Your task to perform on an android device: Clear the shopping cart on costco. Add razer deathadder to the cart on costco, then select checkout. Image 0: 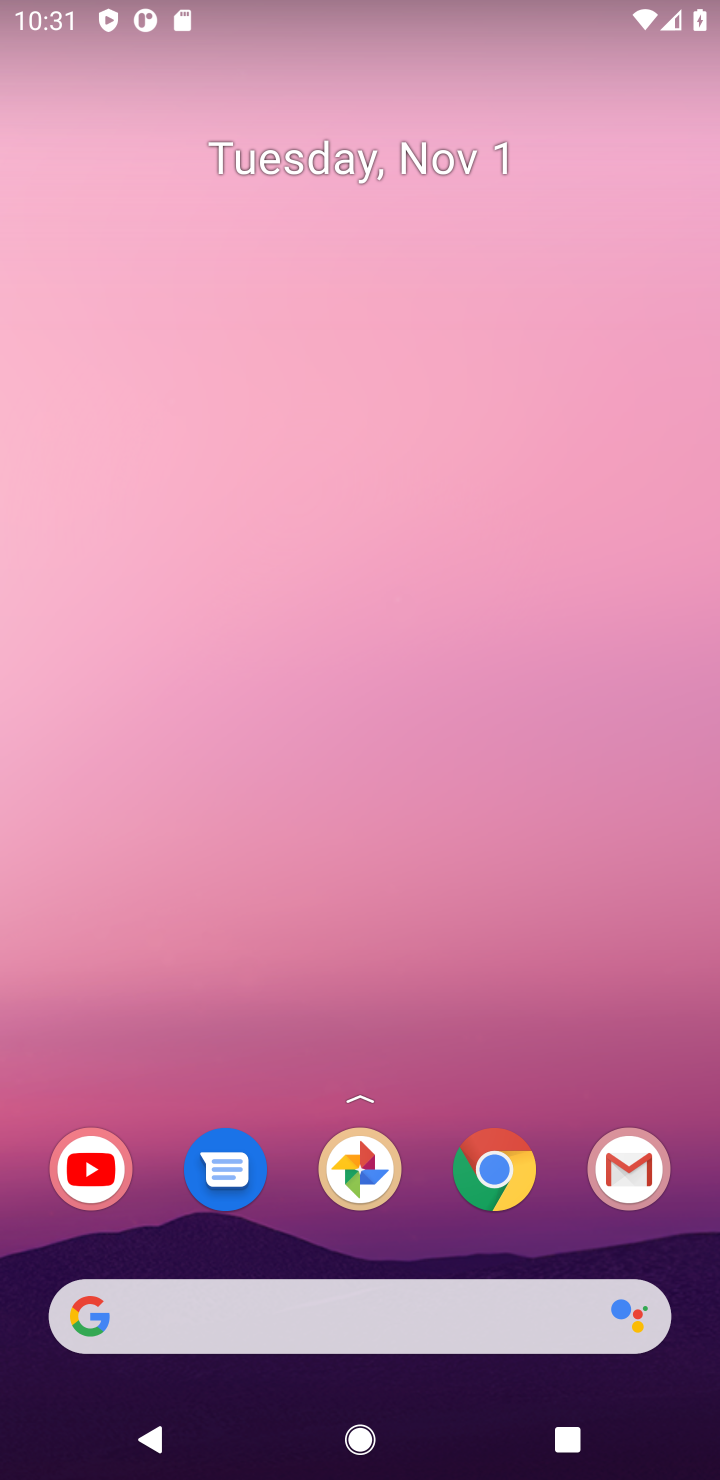
Step 0: click (496, 1159)
Your task to perform on an android device: Clear the shopping cart on costco. Add razer deathadder to the cart on costco, then select checkout. Image 1: 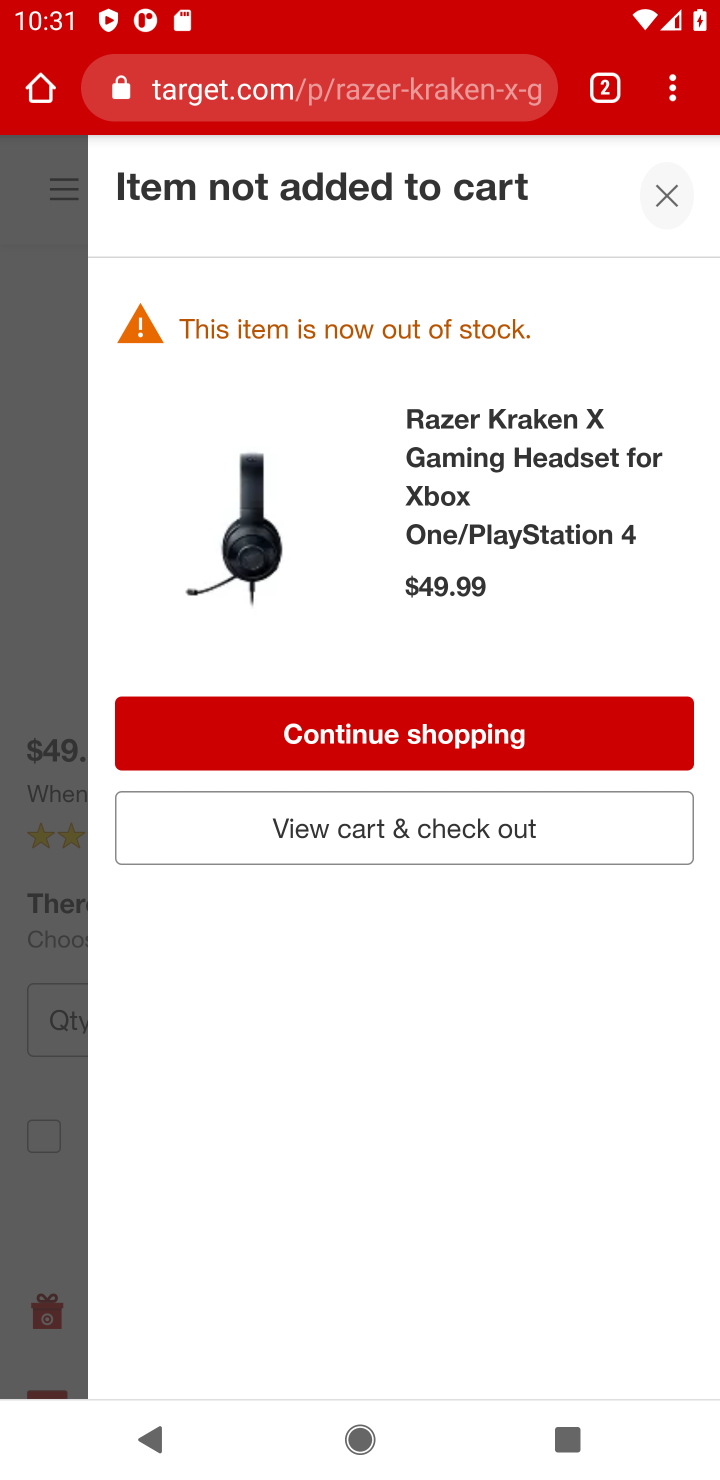
Step 1: click (474, 91)
Your task to perform on an android device: Clear the shopping cart on costco. Add razer deathadder to the cart on costco, then select checkout. Image 2: 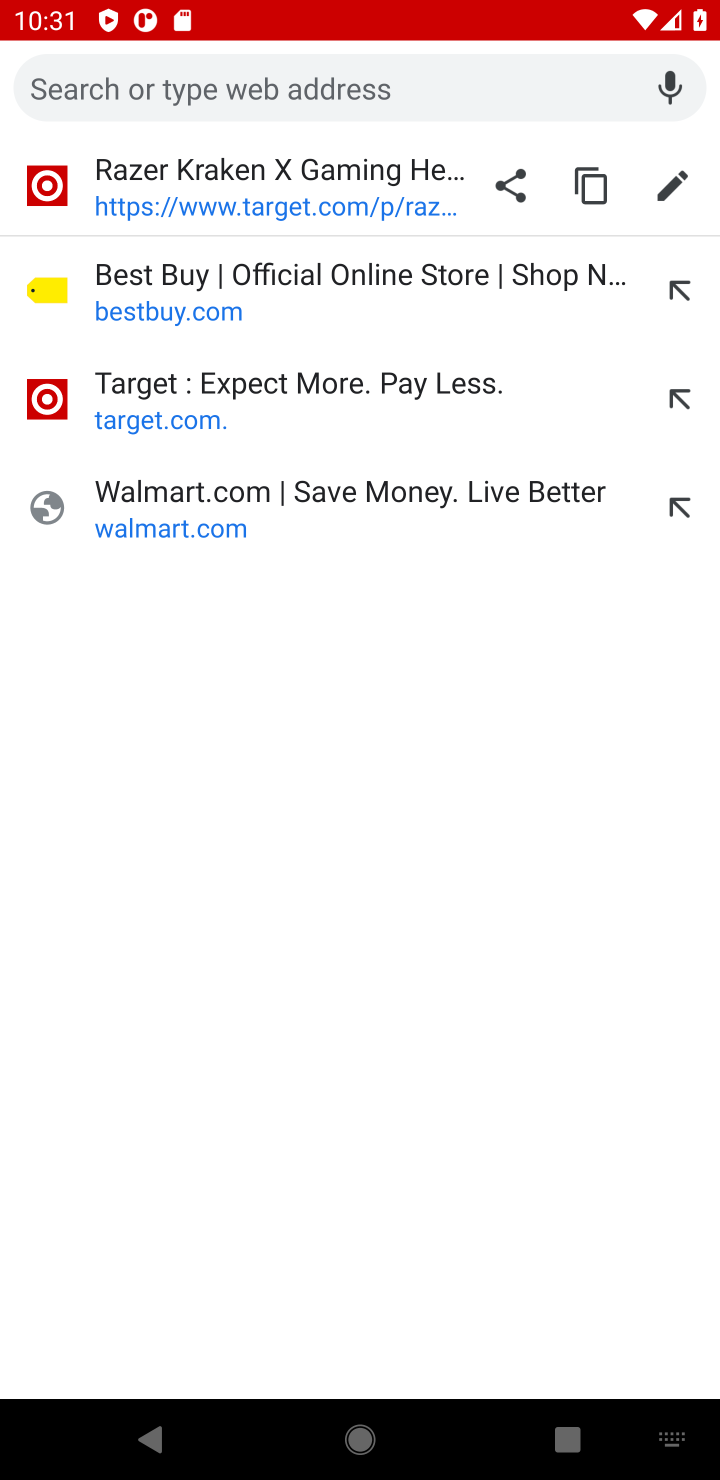
Step 2: click (534, 75)
Your task to perform on an android device: Clear the shopping cart on costco. Add razer deathadder to the cart on costco, then select checkout. Image 3: 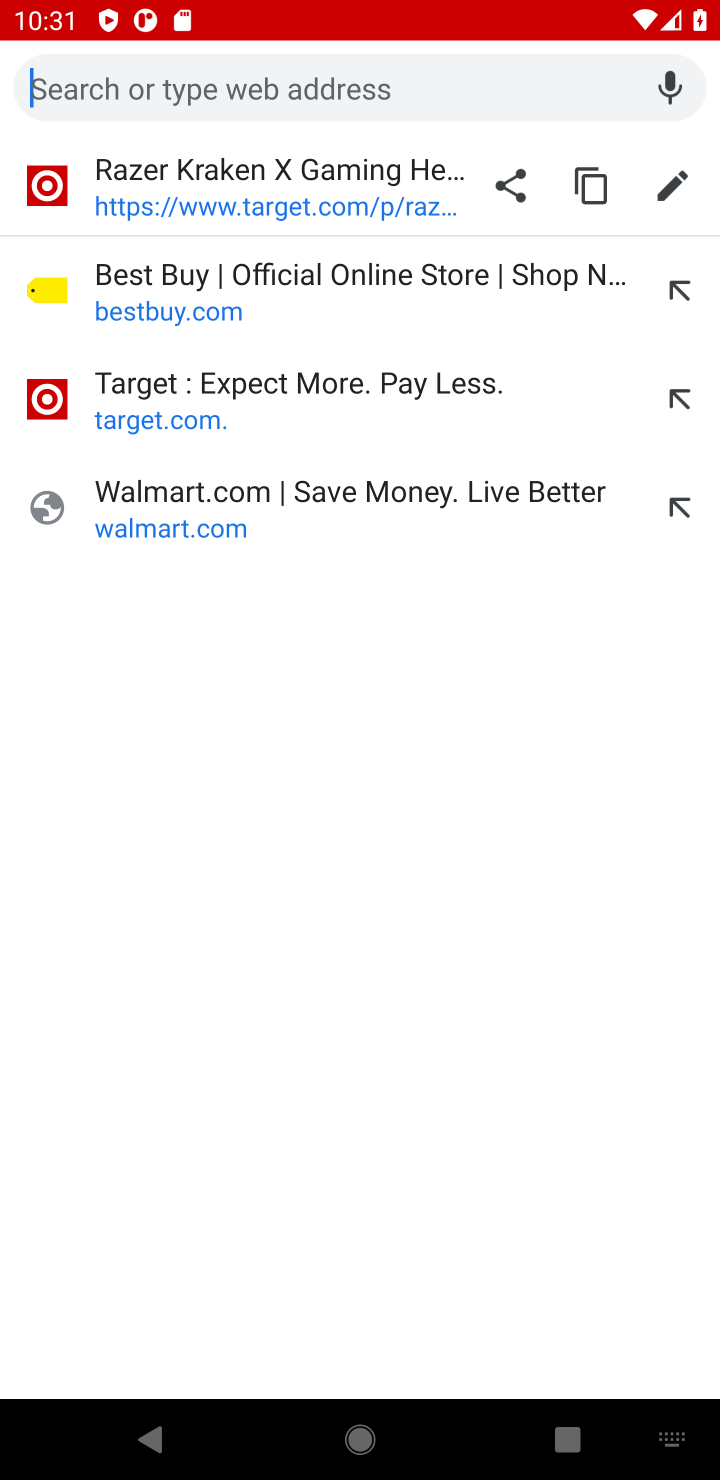
Step 3: type "costco"
Your task to perform on an android device: Clear the shopping cart on costco. Add razer deathadder to the cart on costco, then select checkout. Image 4: 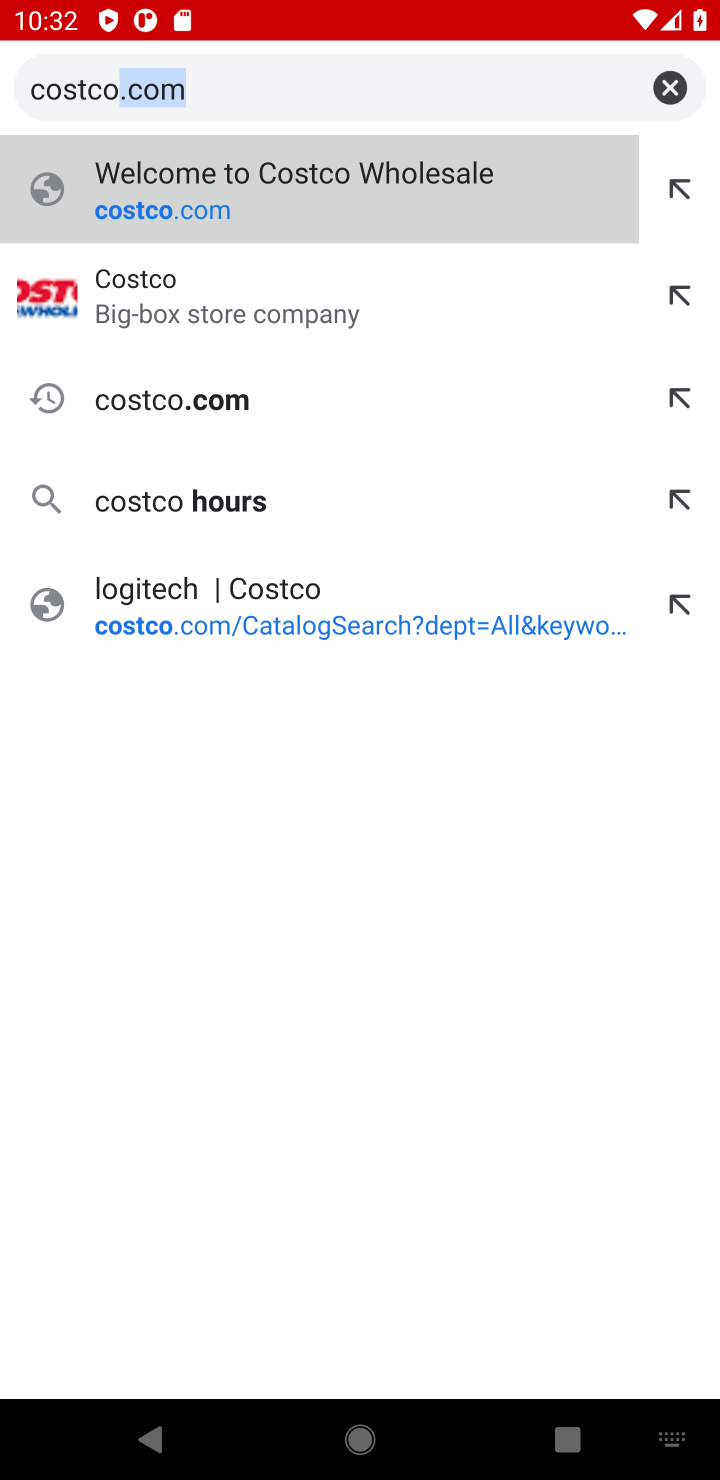
Step 4: click (332, 301)
Your task to perform on an android device: Clear the shopping cart on costco. Add razer deathadder to the cart on costco, then select checkout. Image 5: 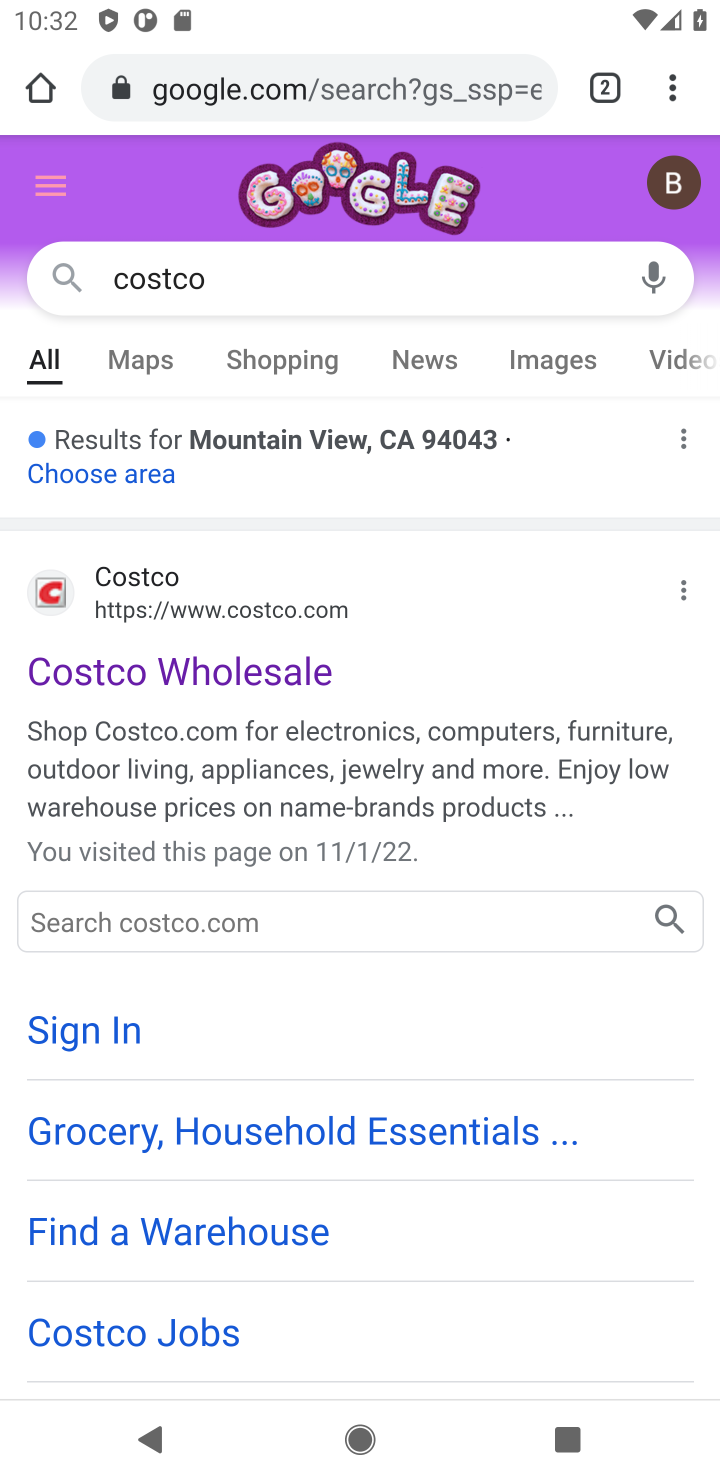
Step 5: click (159, 591)
Your task to perform on an android device: Clear the shopping cart on costco. Add razer deathadder to the cart on costco, then select checkout. Image 6: 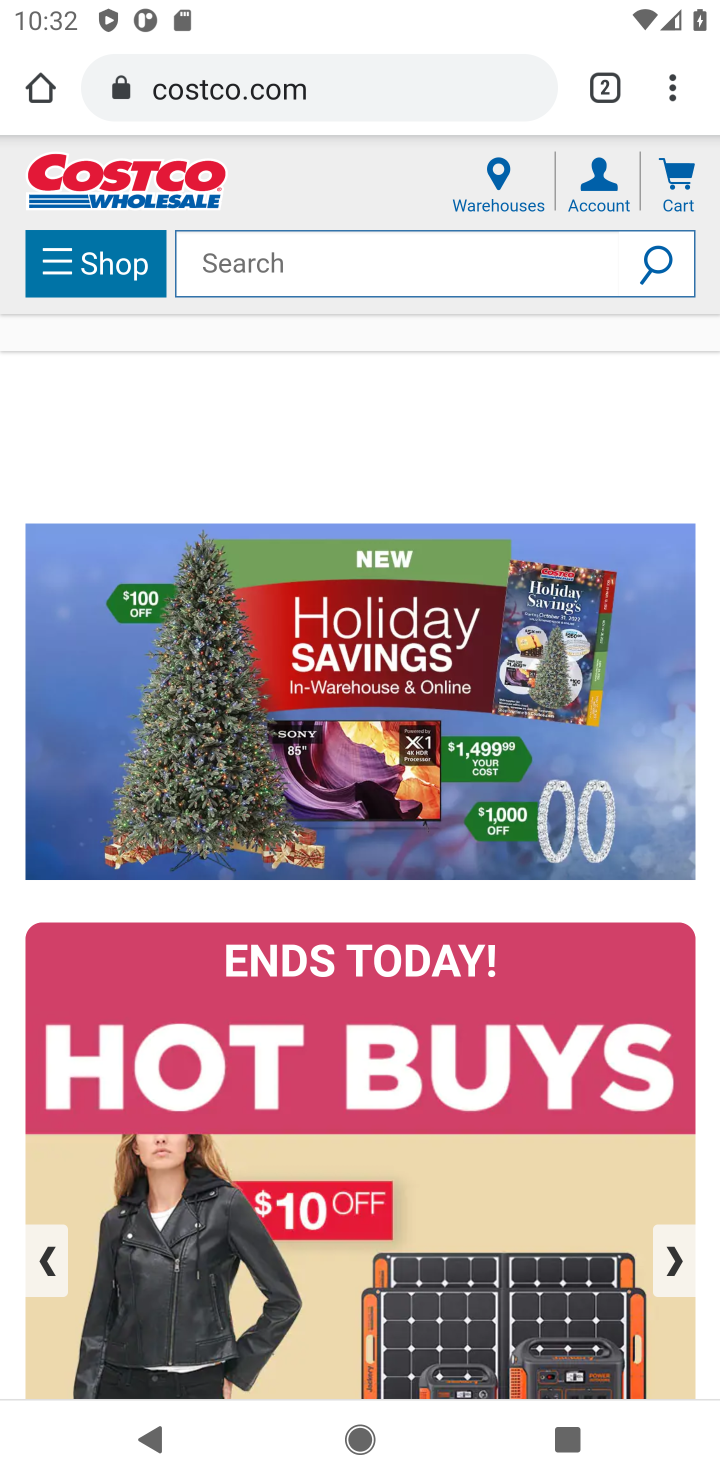
Step 6: click (672, 179)
Your task to perform on an android device: Clear the shopping cart on costco. Add razer deathadder to the cart on costco, then select checkout. Image 7: 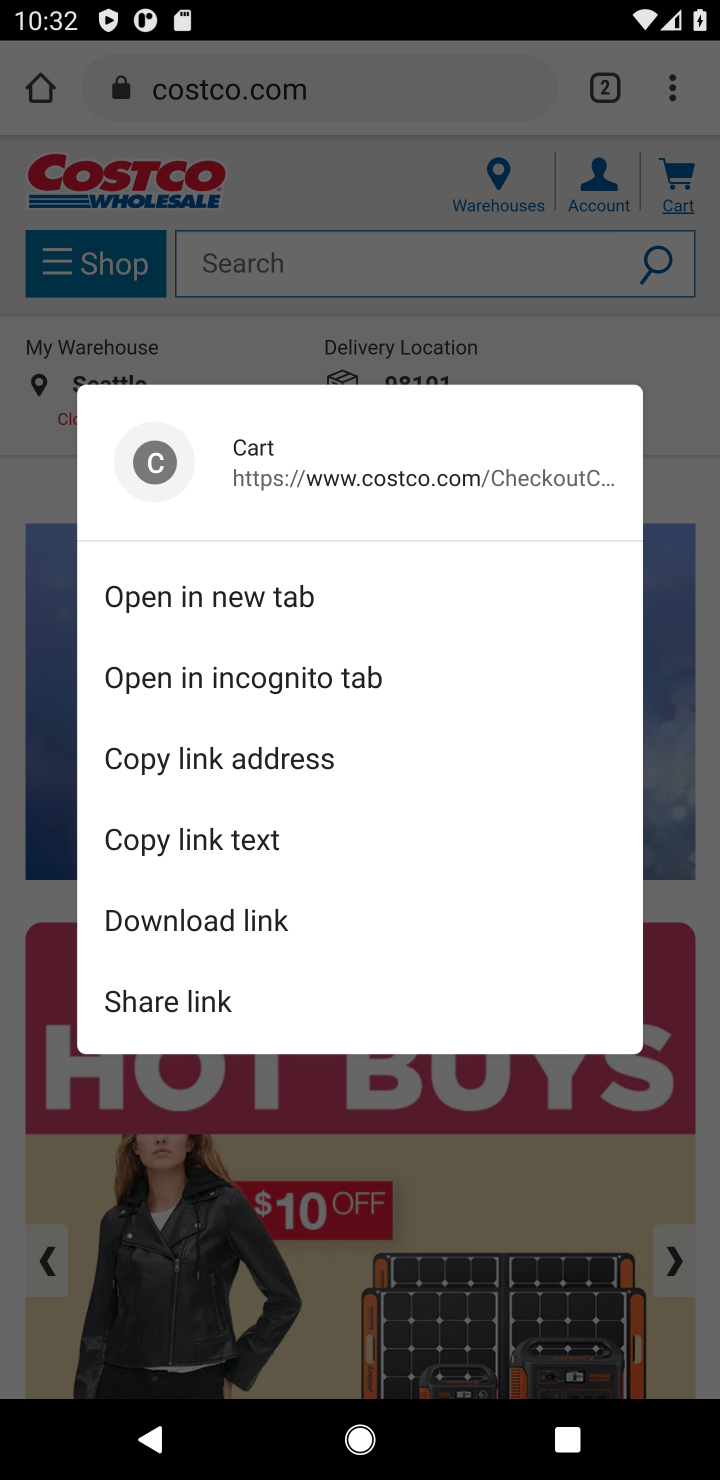
Step 7: click (666, 183)
Your task to perform on an android device: Clear the shopping cart on costco. Add razer deathadder to the cart on costco, then select checkout. Image 8: 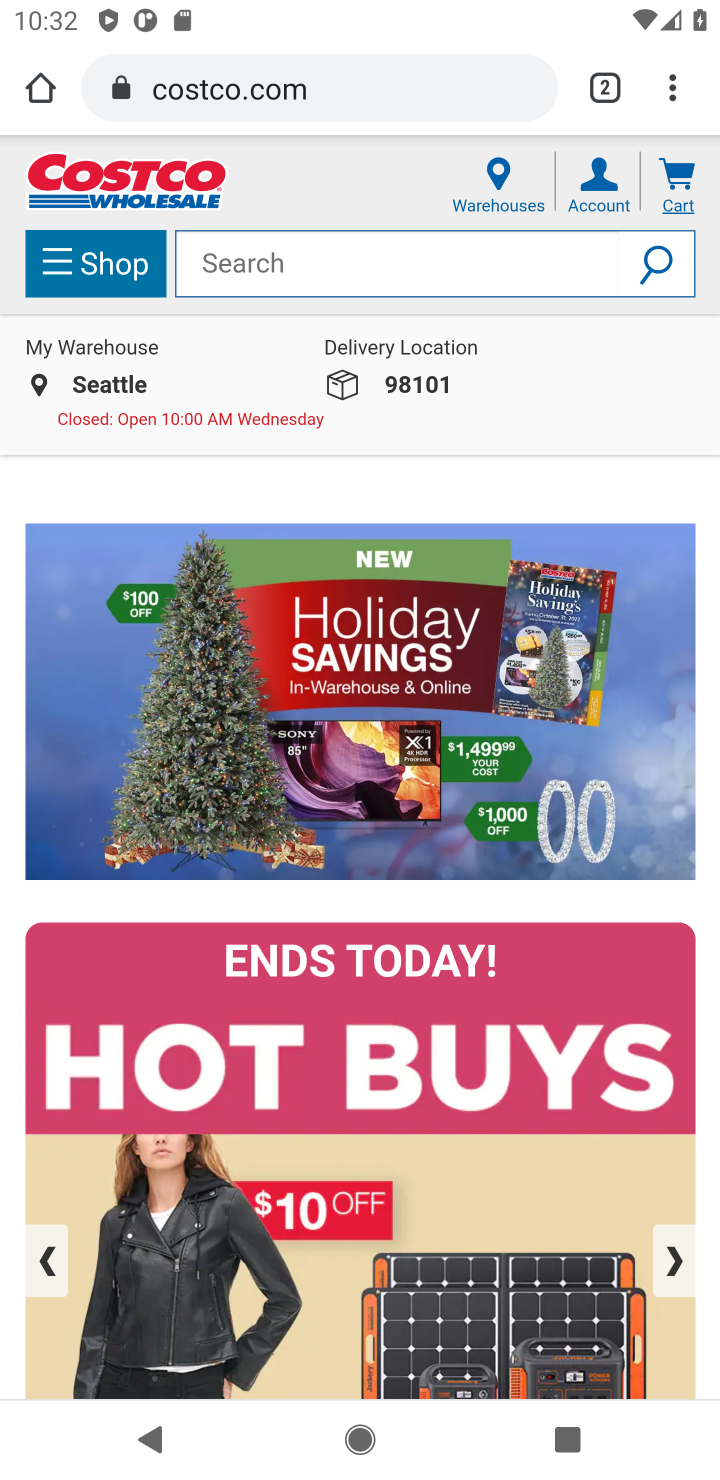
Step 8: click (666, 183)
Your task to perform on an android device: Clear the shopping cart on costco. Add razer deathadder to the cart on costco, then select checkout. Image 9: 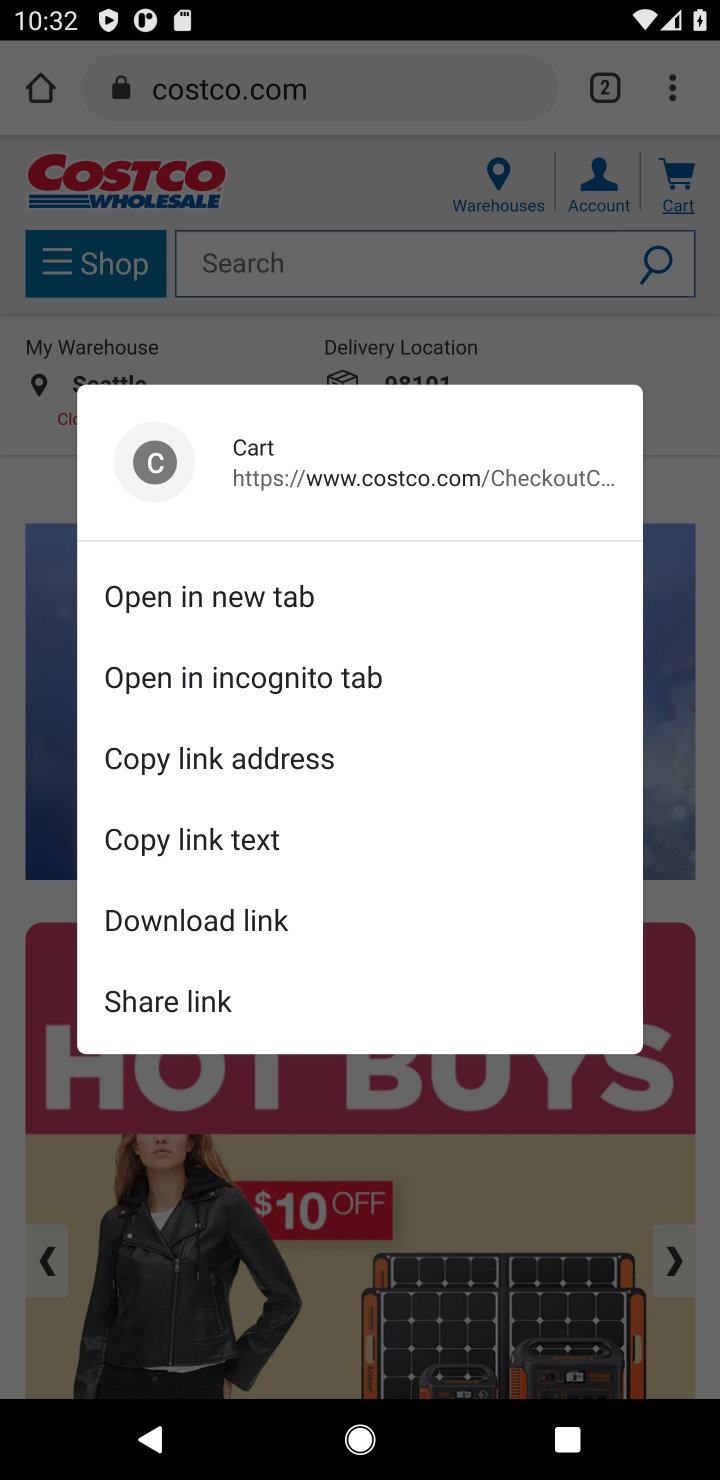
Step 9: click (666, 183)
Your task to perform on an android device: Clear the shopping cart on costco. Add razer deathadder to the cart on costco, then select checkout. Image 10: 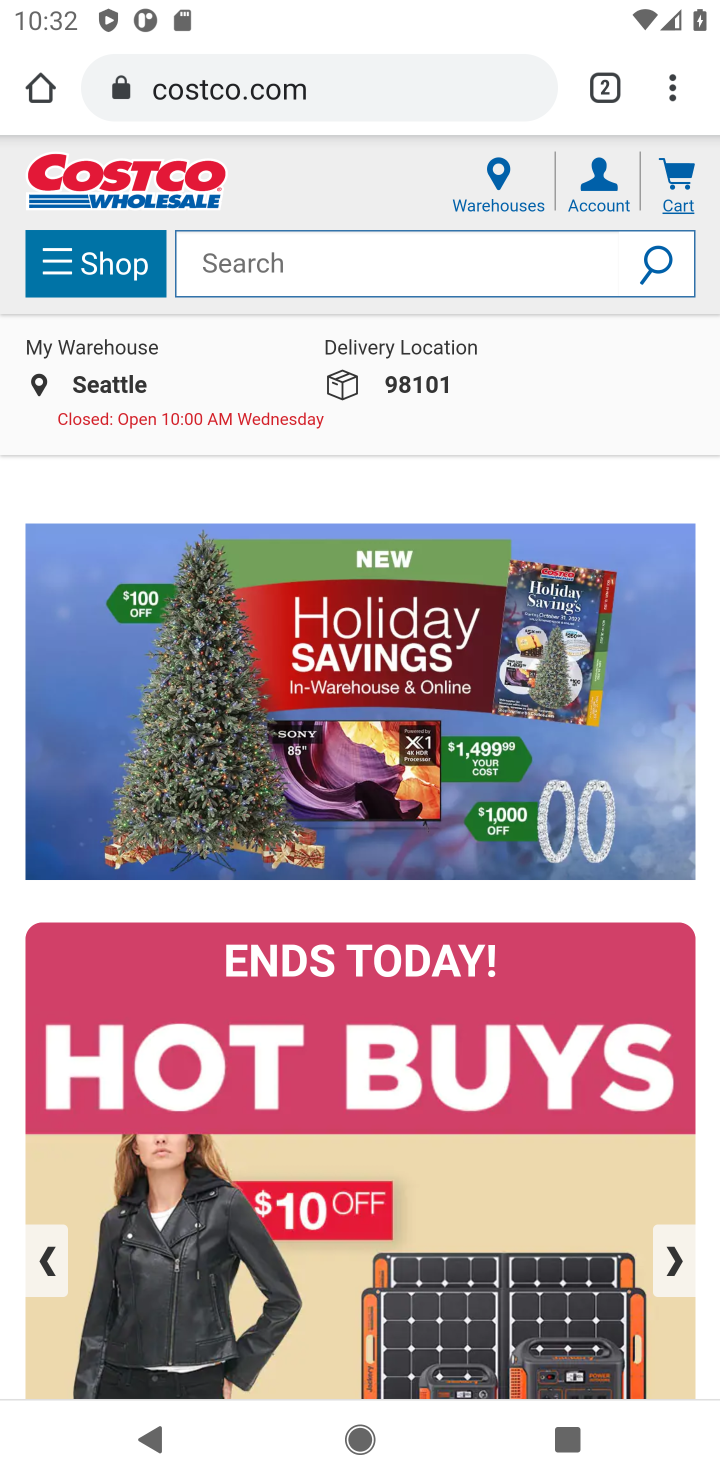
Step 10: click (370, 260)
Your task to perform on an android device: Clear the shopping cart on costco. Add razer deathadder to the cart on costco, then select checkout. Image 11: 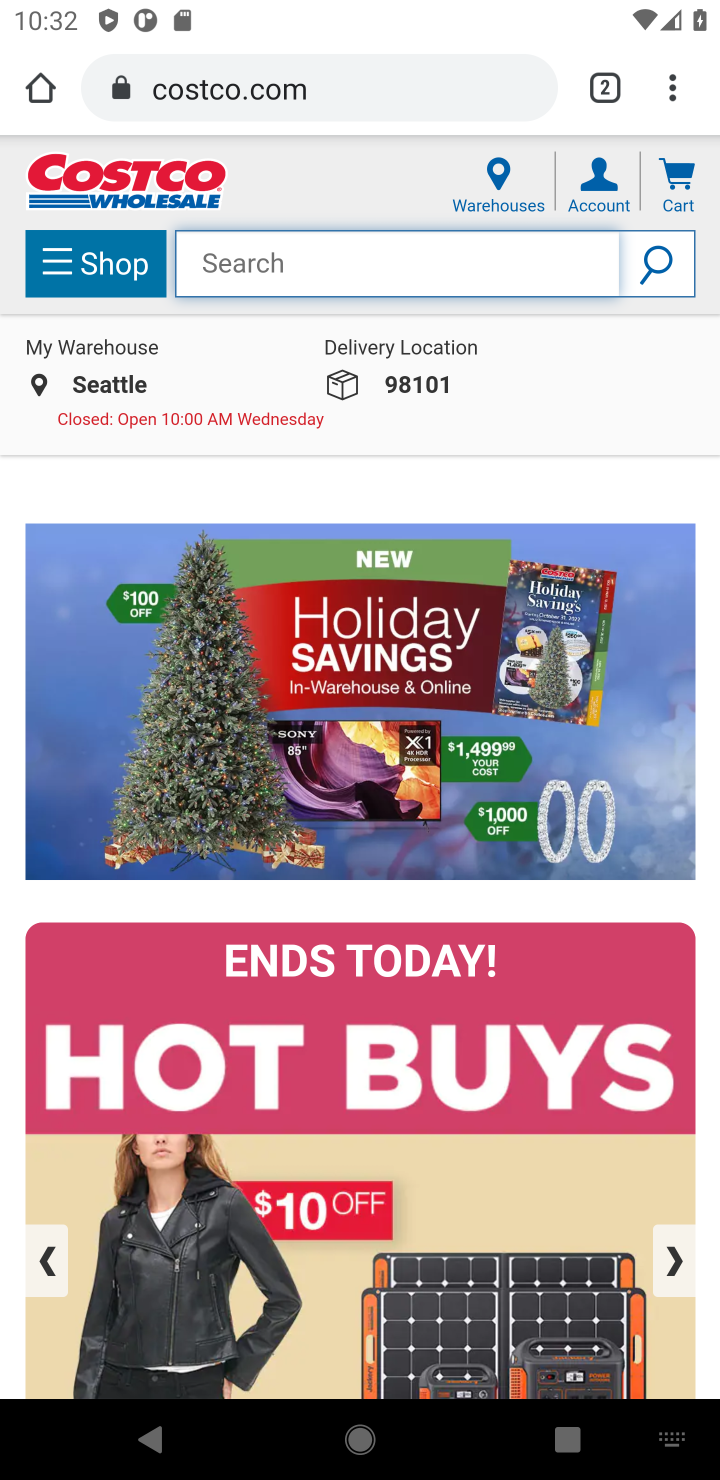
Step 11: type "razer deathadder"
Your task to perform on an android device: Clear the shopping cart on costco. Add razer deathadder to the cart on costco, then select checkout. Image 12: 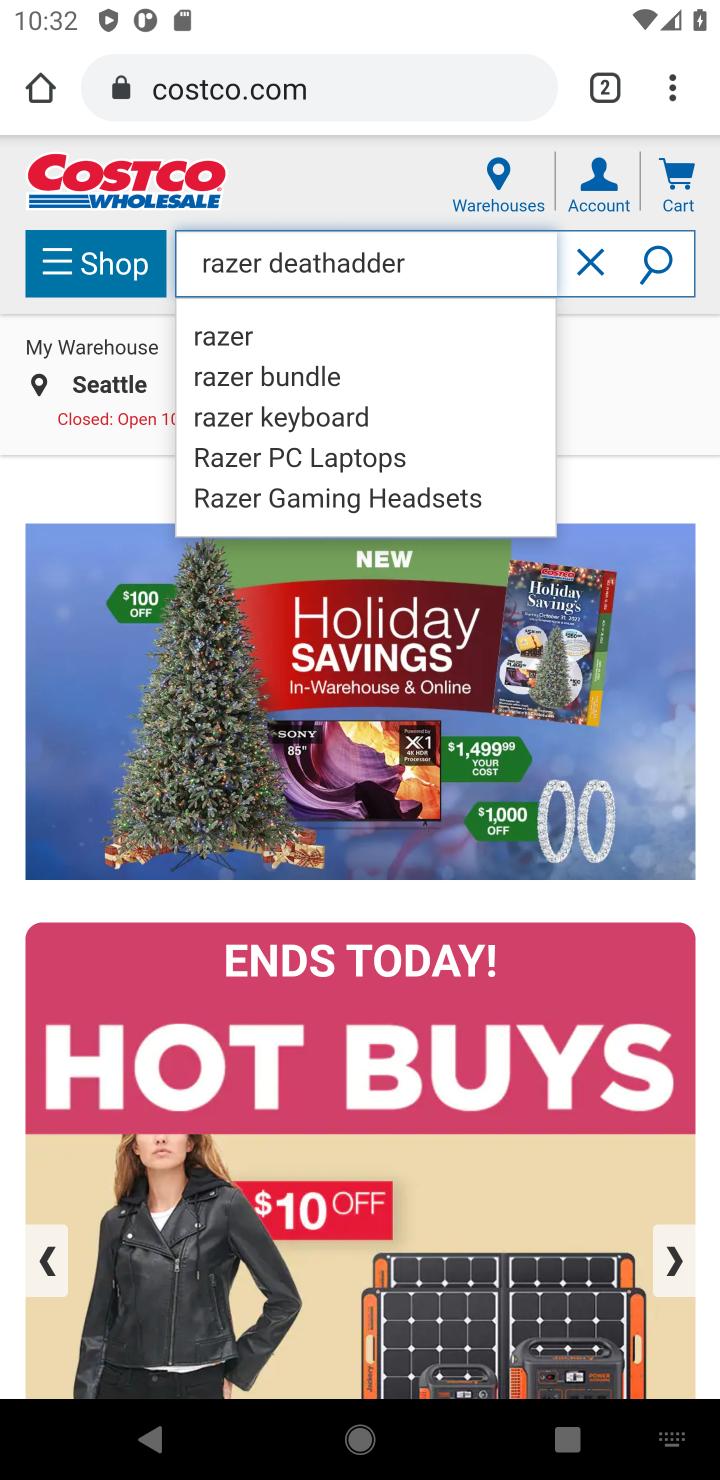
Step 12: click (670, 318)
Your task to perform on an android device: Clear the shopping cart on costco. Add razer deathadder to the cart on costco, then select checkout. Image 13: 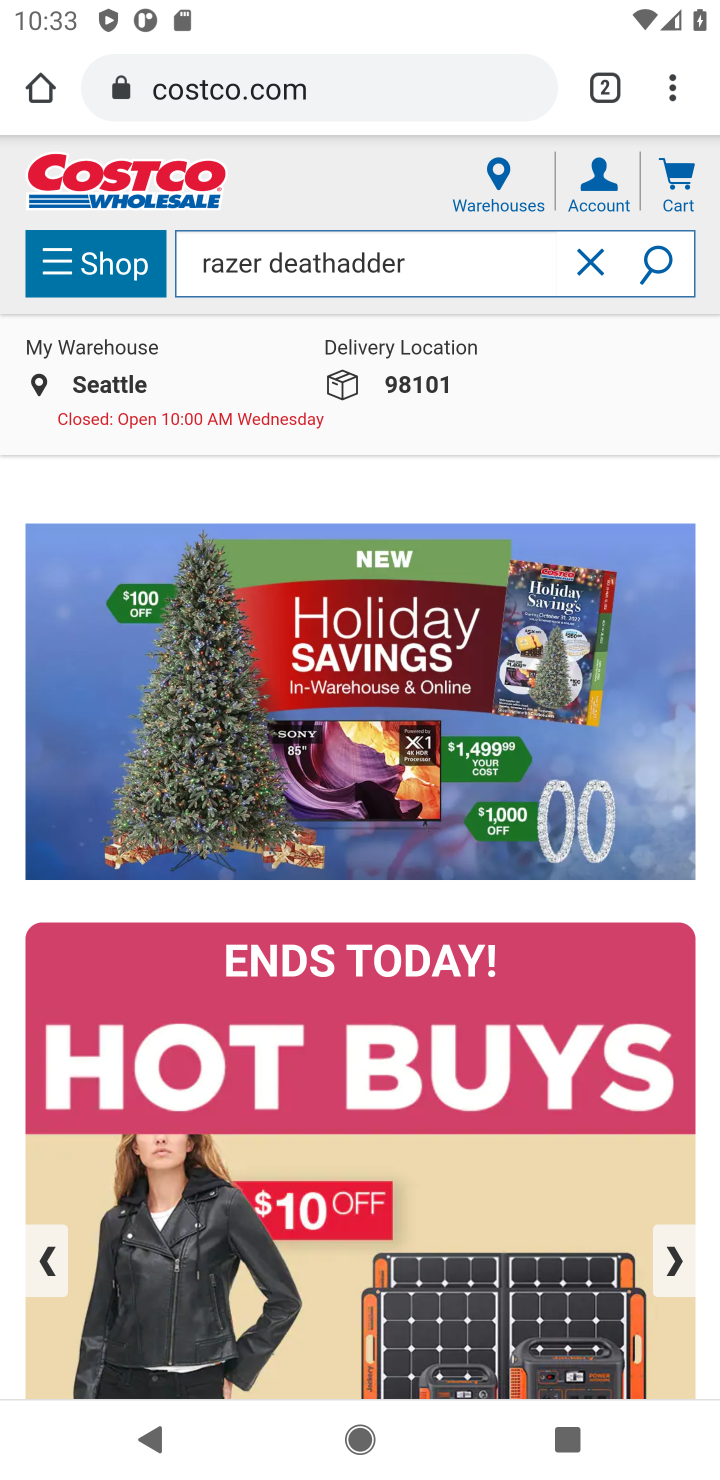
Step 13: click (472, 271)
Your task to perform on an android device: Clear the shopping cart on costco. Add razer deathadder to the cart on costco, then select checkout. Image 14: 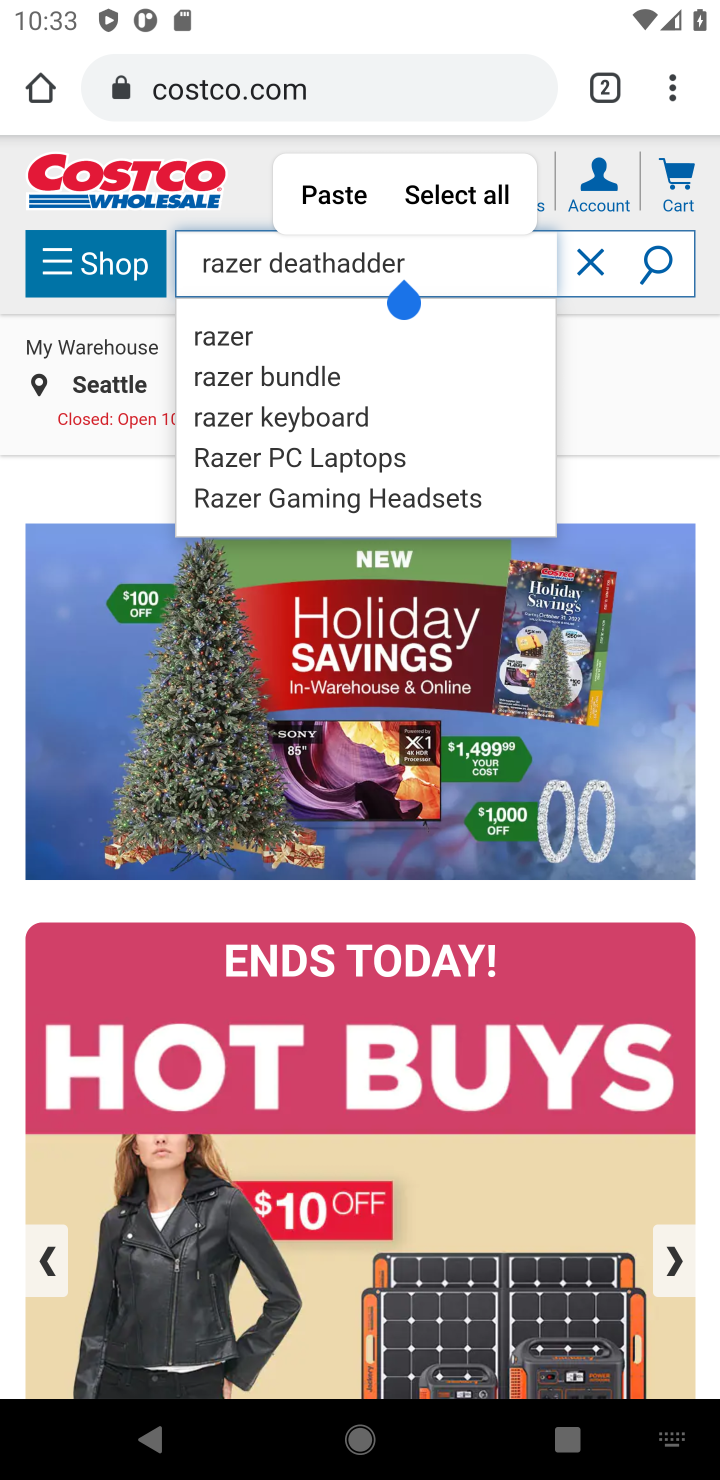
Step 14: click (645, 345)
Your task to perform on an android device: Clear the shopping cart on costco. Add razer deathadder to the cart on costco, then select checkout. Image 15: 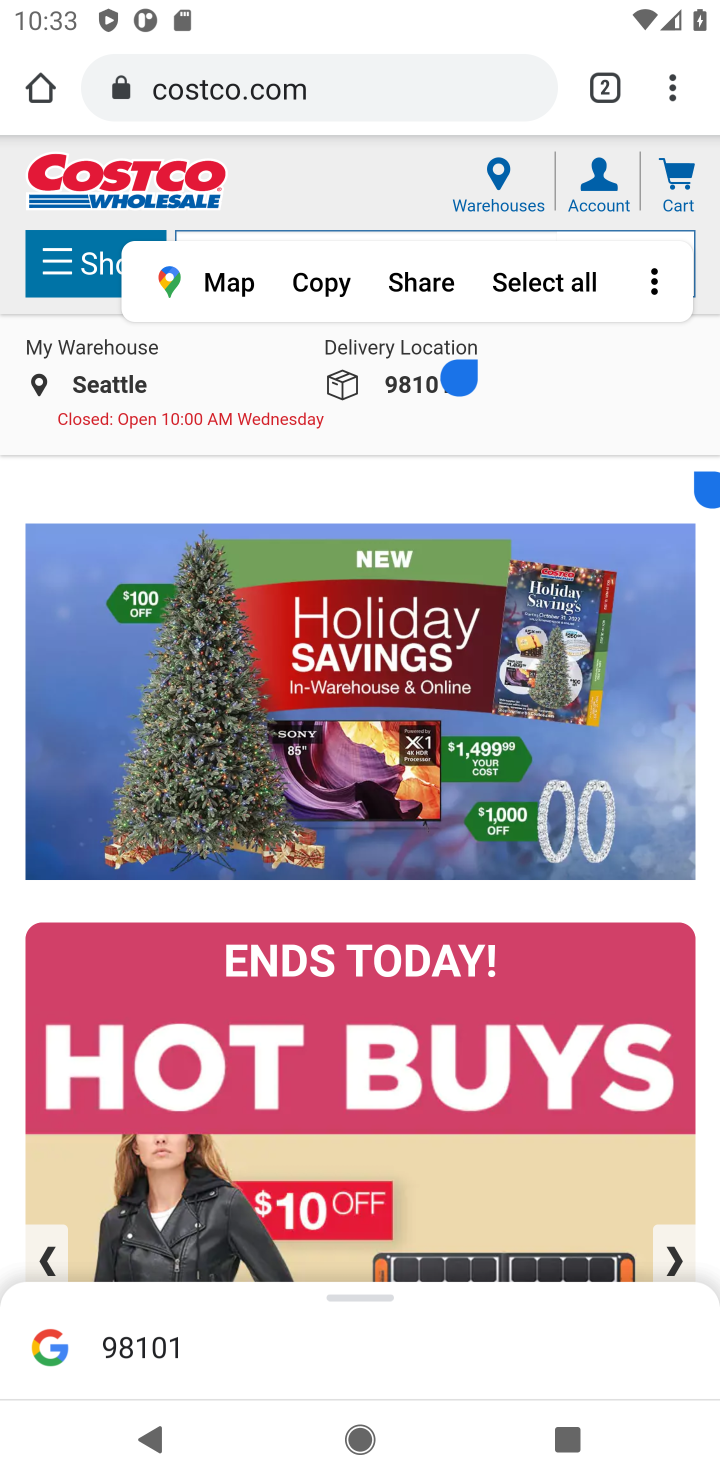
Step 15: task complete